Your task to perform on an android device: empty trash in google photos Image 0: 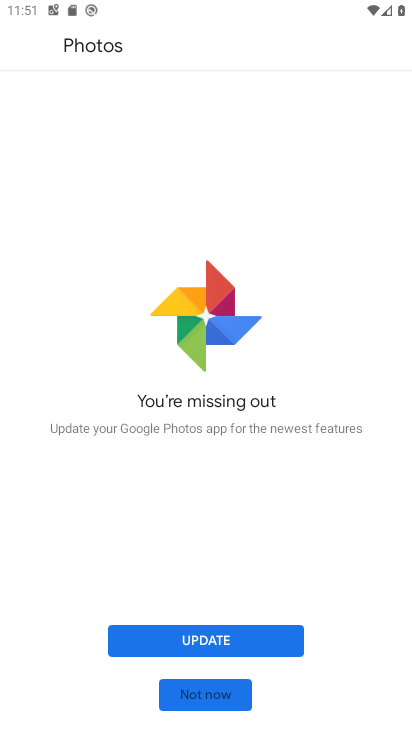
Step 0: press home button
Your task to perform on an android device: empty trash in google photos Image 1: 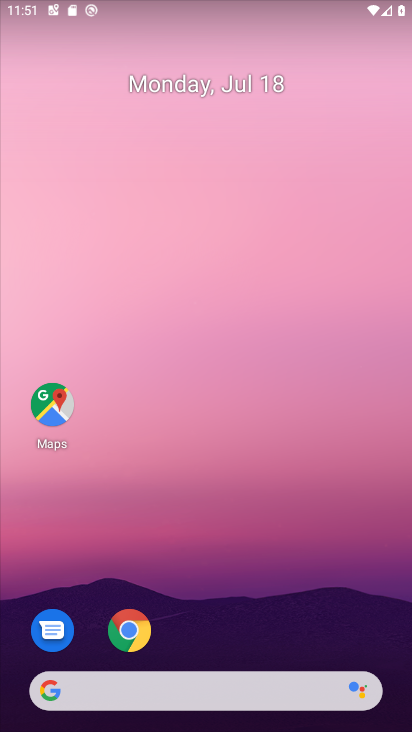
Step 1: drag from (197, 570) to (249, 84)
Your task to perform on an android device: empty trash in google photos Image 2: 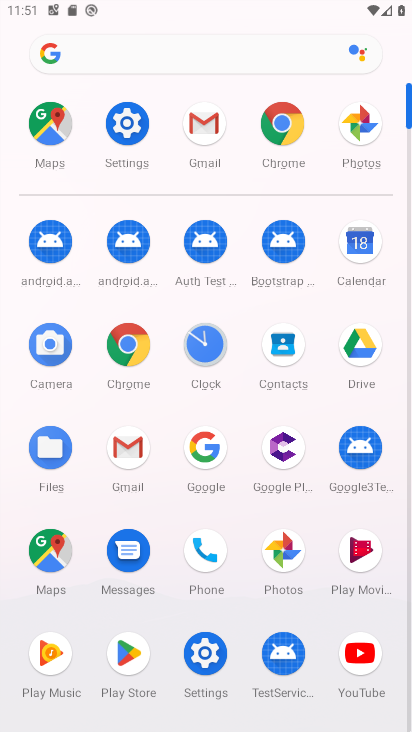
Step 2: click (289, 558)
Your task to perform on an android device: empty trash in google photos Image 3: 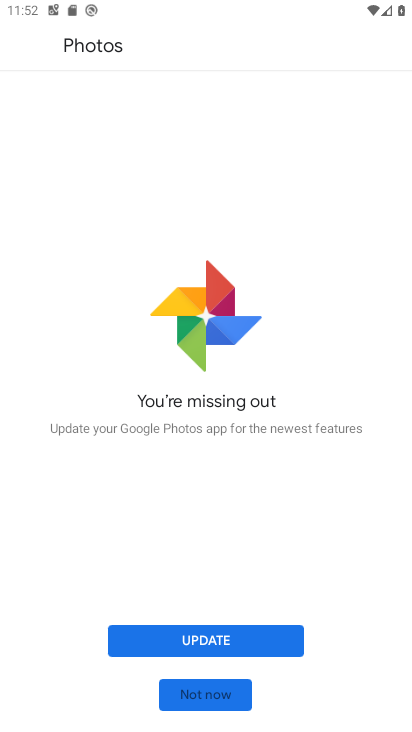
Step 3: click (206, 689)
Your task to perform on an android device: empty trash in google photos Image 4: 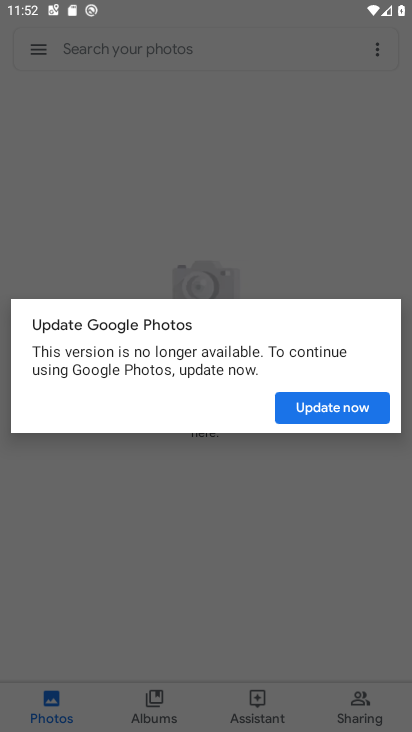
Step 4: click (375, 412)
Your task to perform on an android device: empty trash in google photos Image 5: 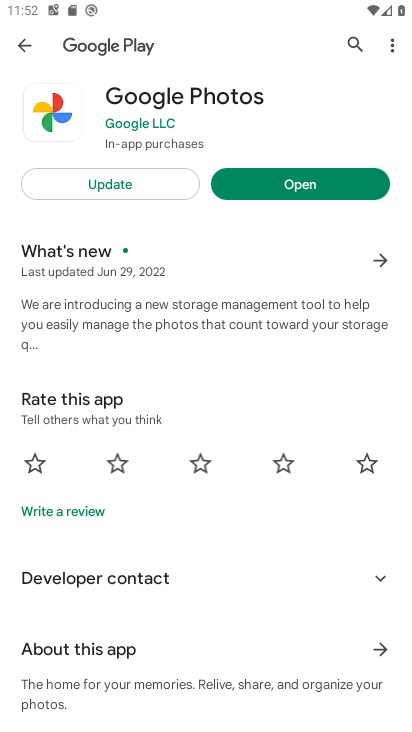
Step 5: click (289, 185)
Your task to perform on an android device: empty trash in google photos Image 6: 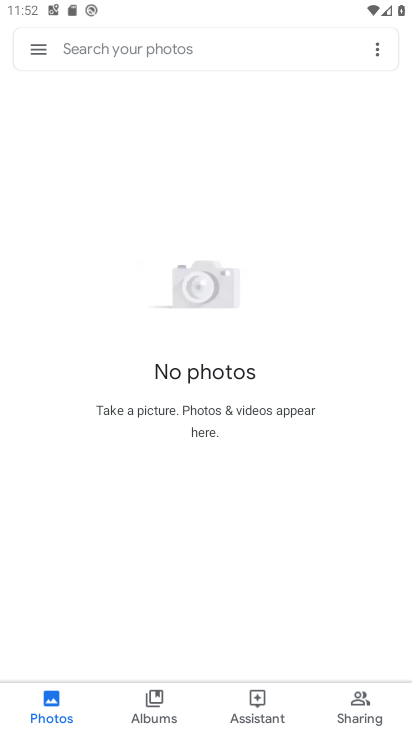
Step 6: click (35, 55)
Your task to perform on an android device: empty trash in google photos Image 7: 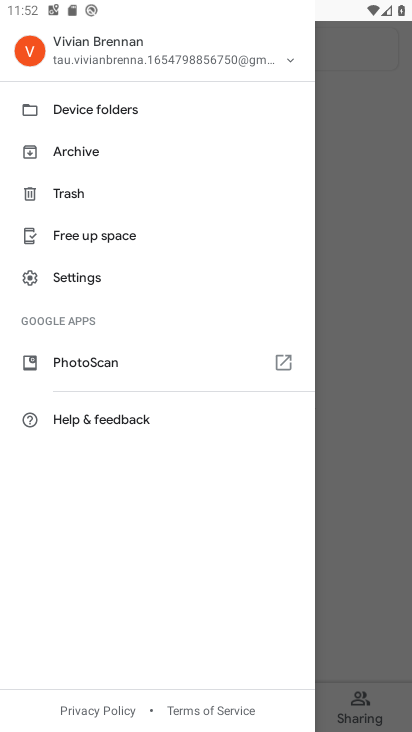
Step 7: click (98, 192)
Your task to perform on an android device: empty trash in google photos Image 8: 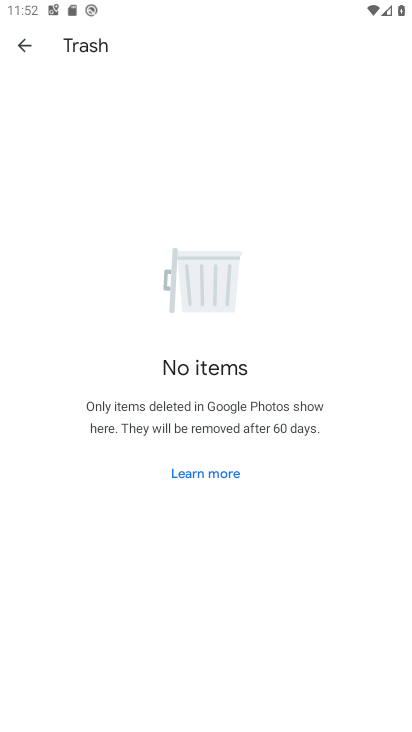
Step 8: task complete